Your task to perform on an android device: toggle airplane mode Image 0: 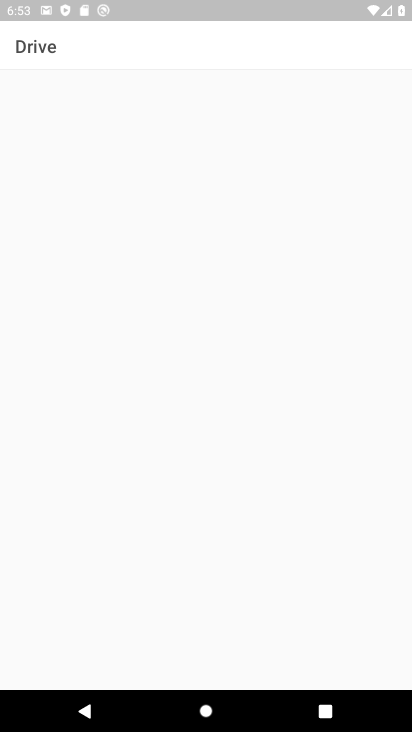
Step 0: press home button
Your task to perform on an android device: toggle airplane mode Image 1: 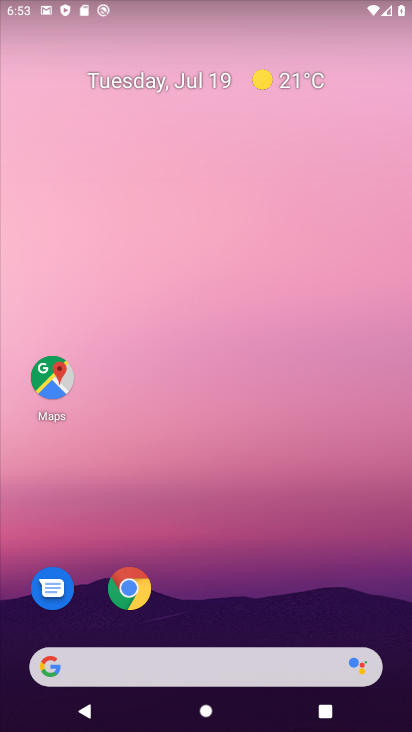
Step 1: drag from (342, 16) to (361, 622)
Your task to perform on an android device: toggle airplane mode Image 2: 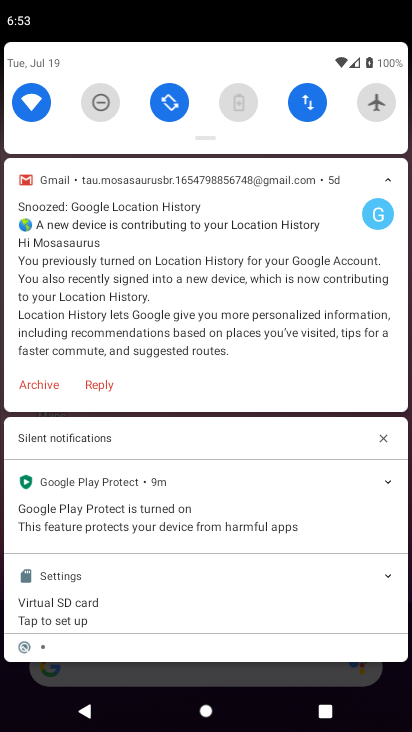
Step 2: click (379, 111)
Your task to perform on an android device: toggle airplane mode Image 3: 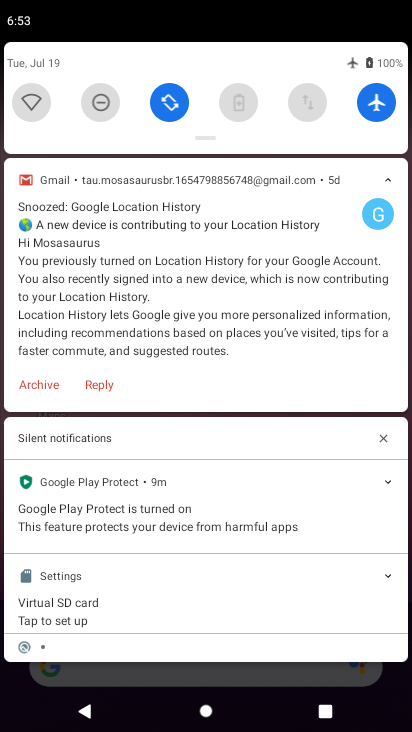
Step 3: task complete